Your task to perform on an android device: Open privacy settings Image 0: 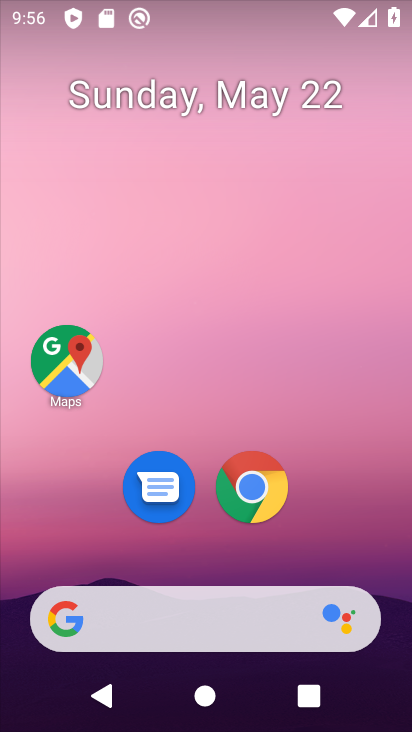
Step 0: drag from (343, 562) to (74, 18)
Your task to perform on an android device: Open privacy settings Image 1: 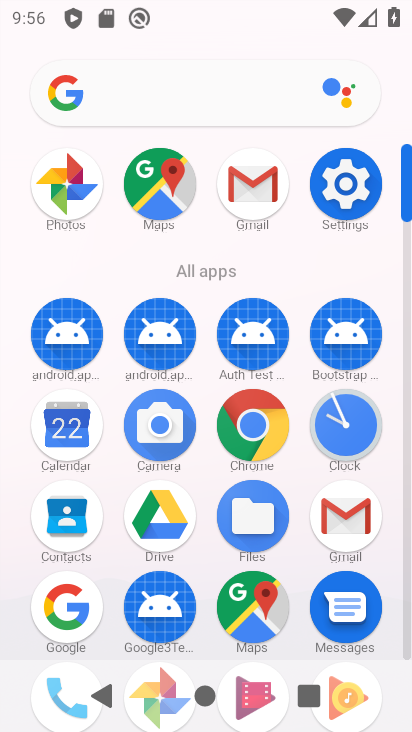
Step 1: click (350, 192)
Your task to perform on an android device: Open privacy settings Image 2: 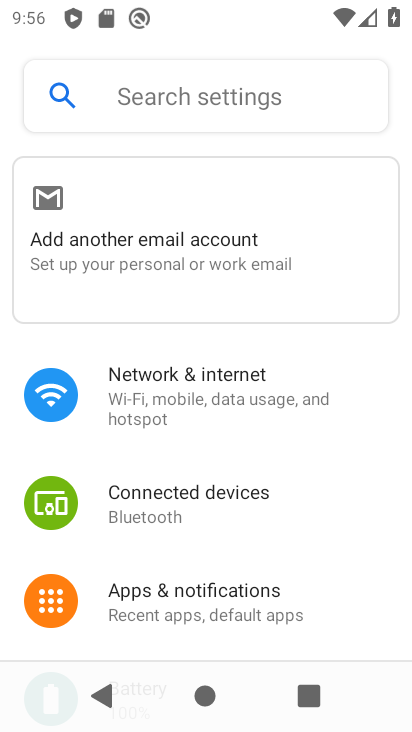
Step 2: drag from (307, 634) to (233, 181)
Your task to perform on an android device: Open privacy settings Image 3: 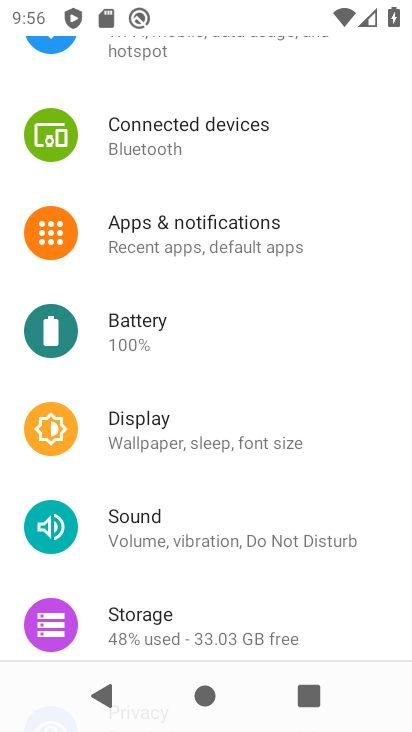
Step 3: drag from (314, 605) to (261, 116)
Your task to perform on an android device: Open privacy settings Image 4: 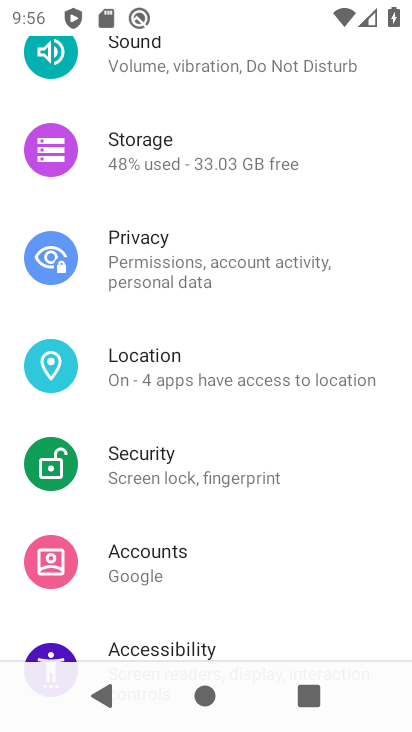
Step 4: click (215, 254)
Your task to perform on an android device: Open privacy settings Image 5: 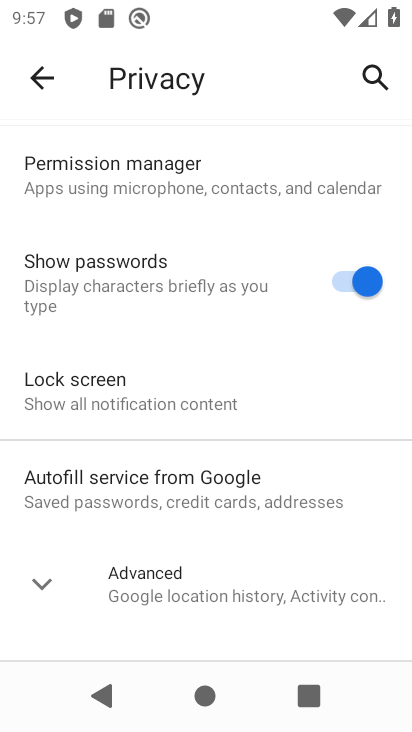
Step 5: task complete